Your task to perform on an android device: Clear the shopping cart on bestbuy. Search for corsair k70 on bestbuy, select the first entry, add it to the cart, then select checkout. Image 0: 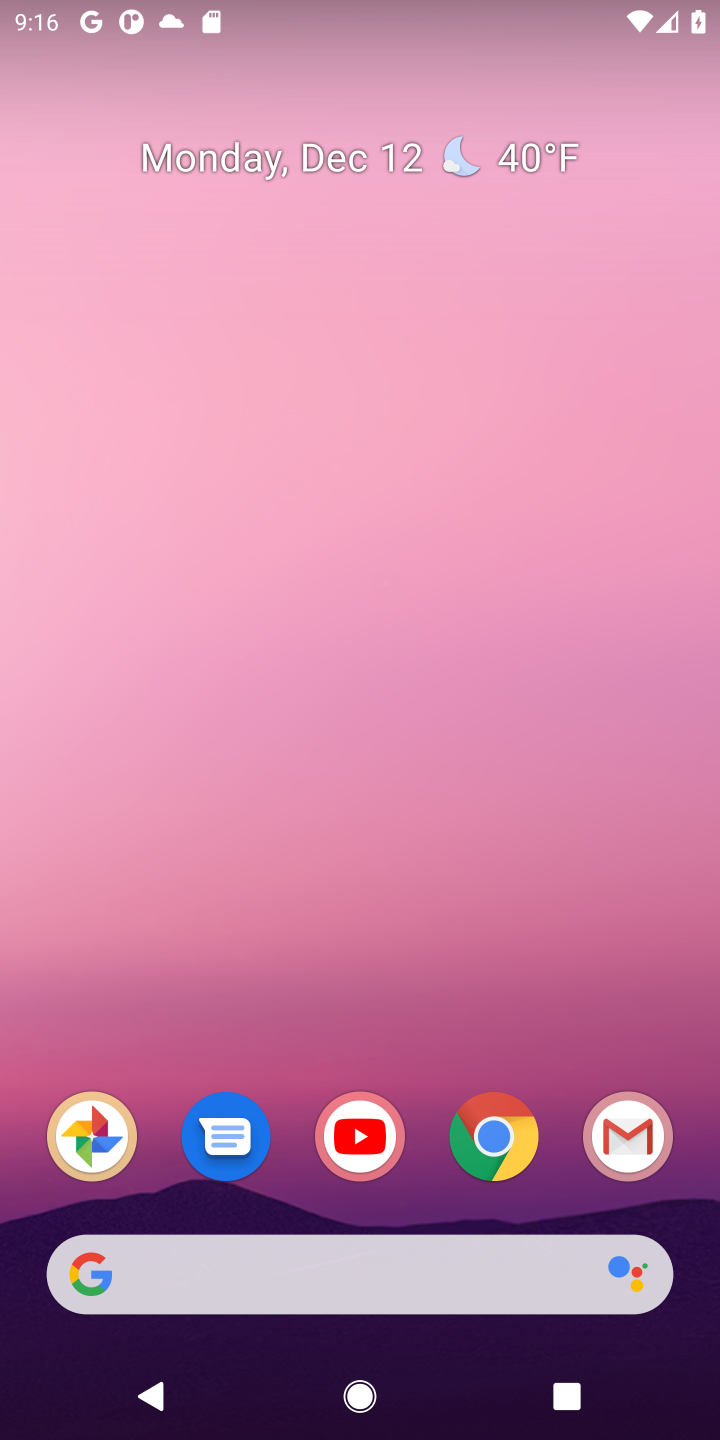
Step 0: click (504, 1150)
Your task to perform on an android device: Clear the shopping cart on bestbuy. Search for corsair k70 on bestbuy, select the first entry, add it to the cart, then select checkout. Image 1: 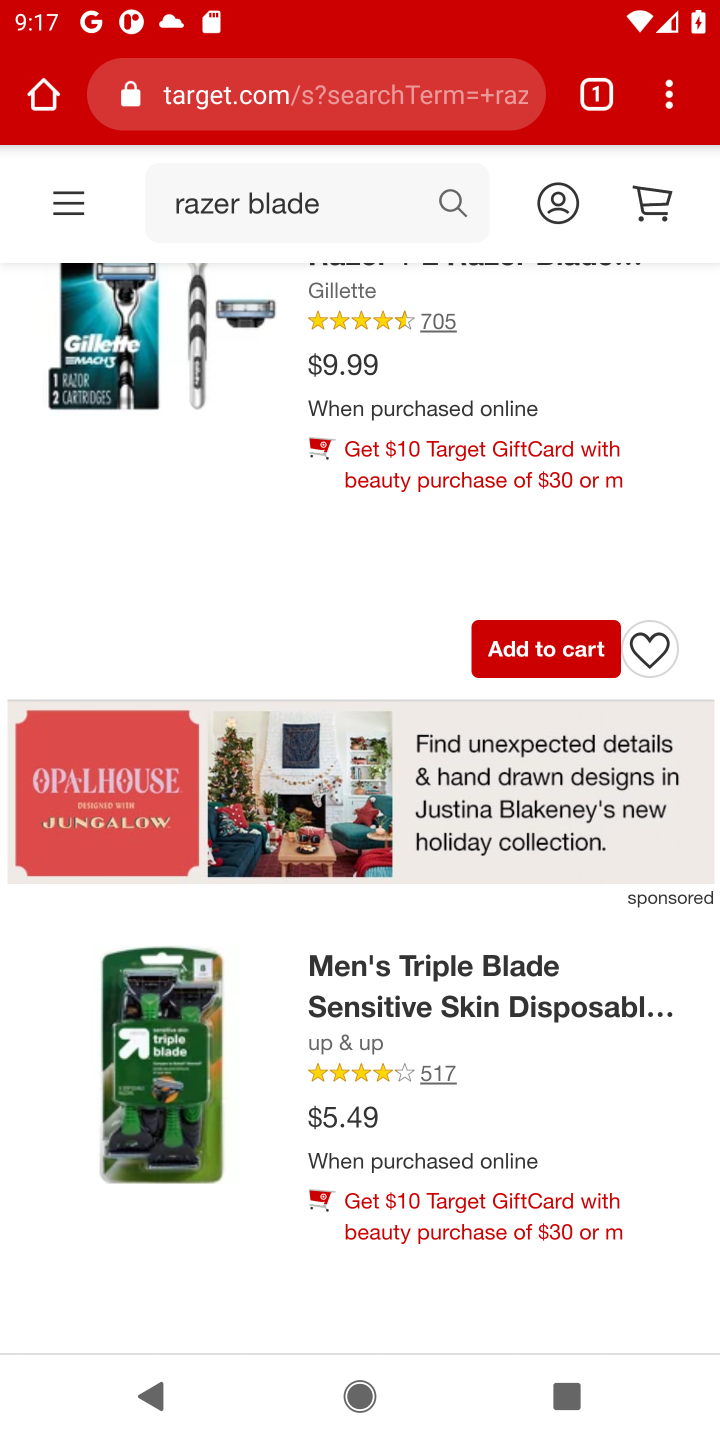
Step 1: click (232, 110)
Your task to perform on an android device: Clear the shopping cart on bestbuy. Search for corsair k70 on bestbuy, select the first entry, add it to the cart, then select checkout. Image 2: 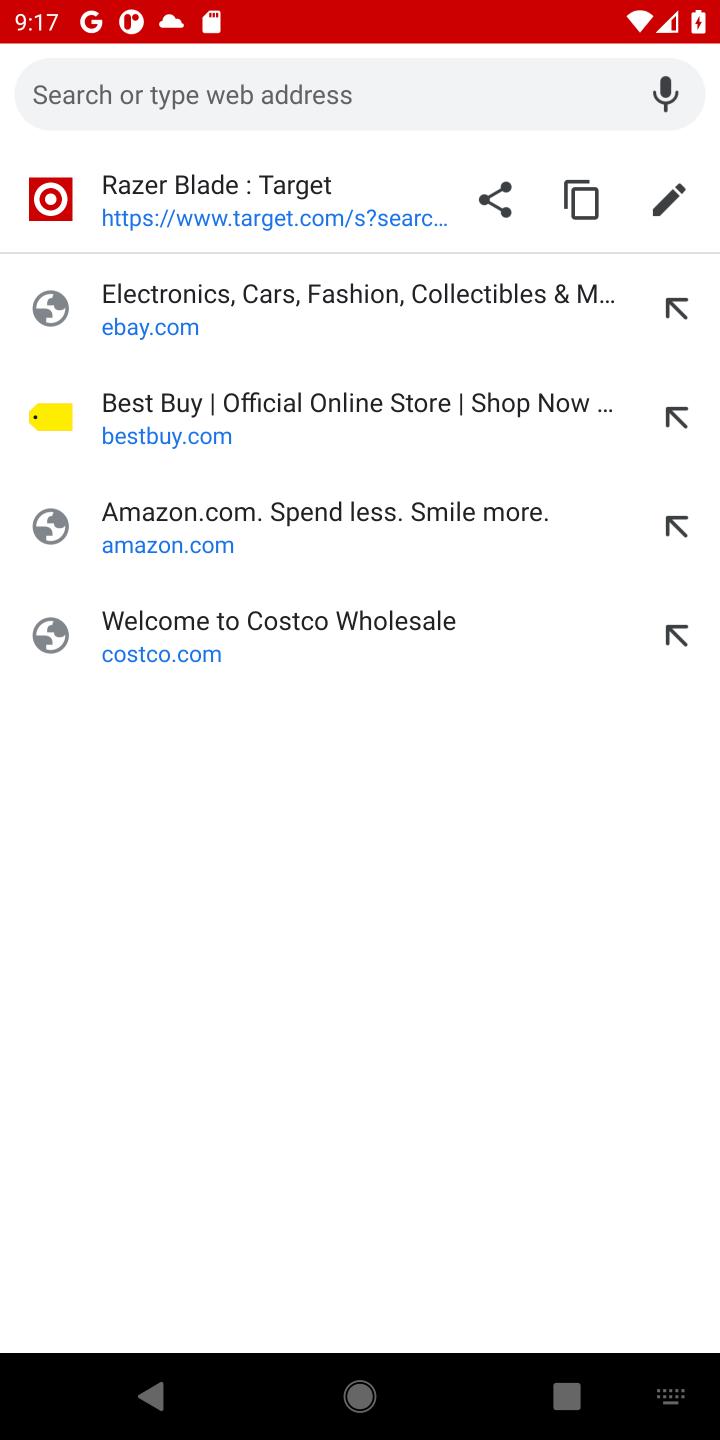
Step 2: click (111, 429)
Your task to perform on an android device: Clear the shopping cart on bestbuy. Search for corsair k70 on bestbuy, select the first entry, add it to the cart, then select checkout. Image 3: 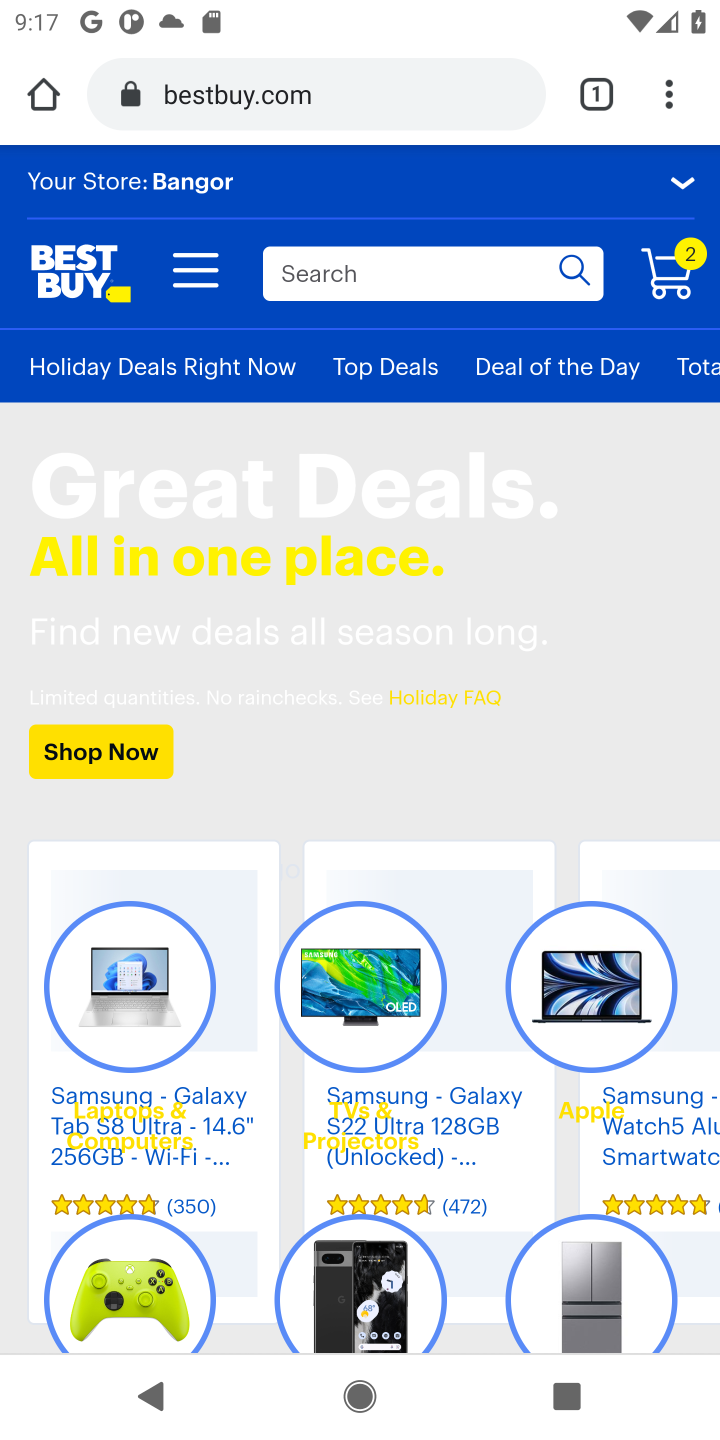
Step 3: click (672, 278)
Your task to perform on an android device: Clear the shopping cart on bestbuy. Search for corsair k70 on bestbuy, select the first entry, add it to the cart, then select checkout. Image 4: 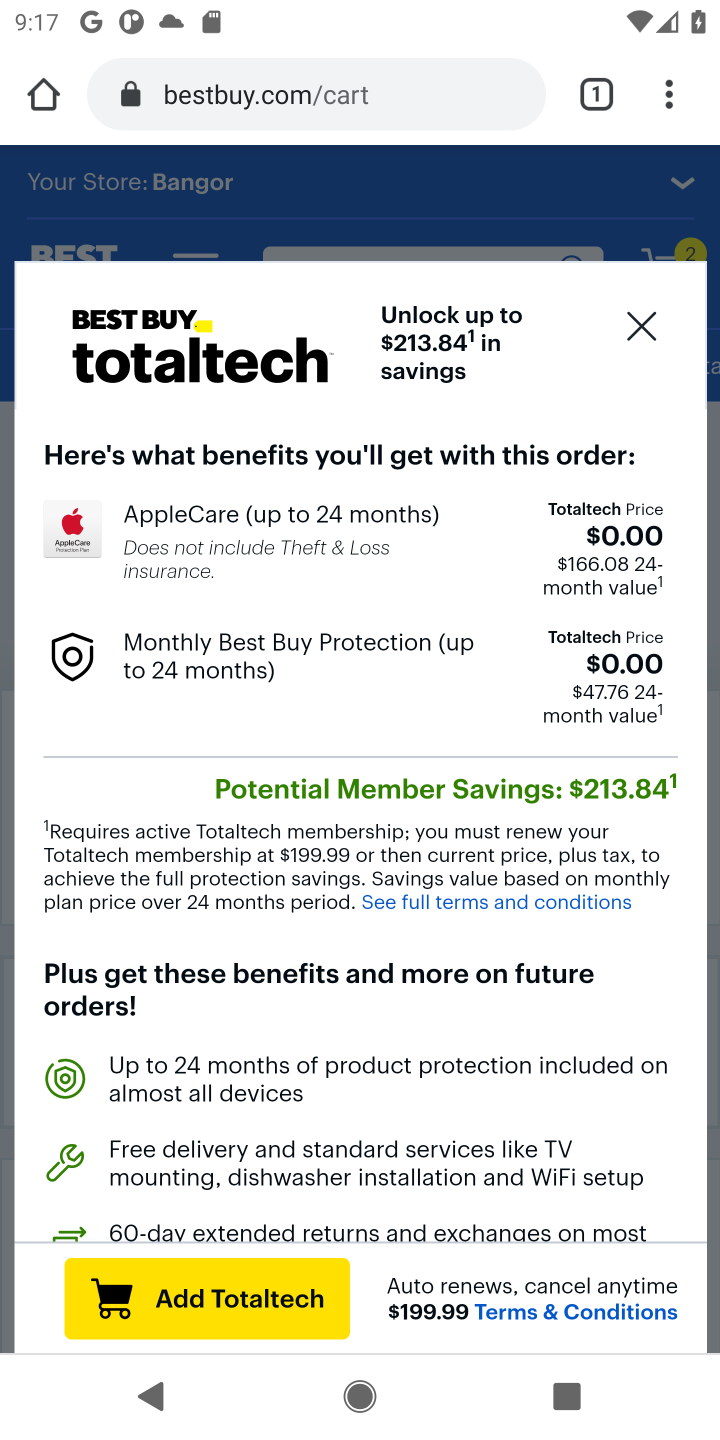
Step 4: click (640, 331)
Your task to perform on an android device: Clear the shopping cart on bestbuy. Search for corsair k70 on bestbuy, select the first entry, add it to the cart, then select checkout. Image 5: 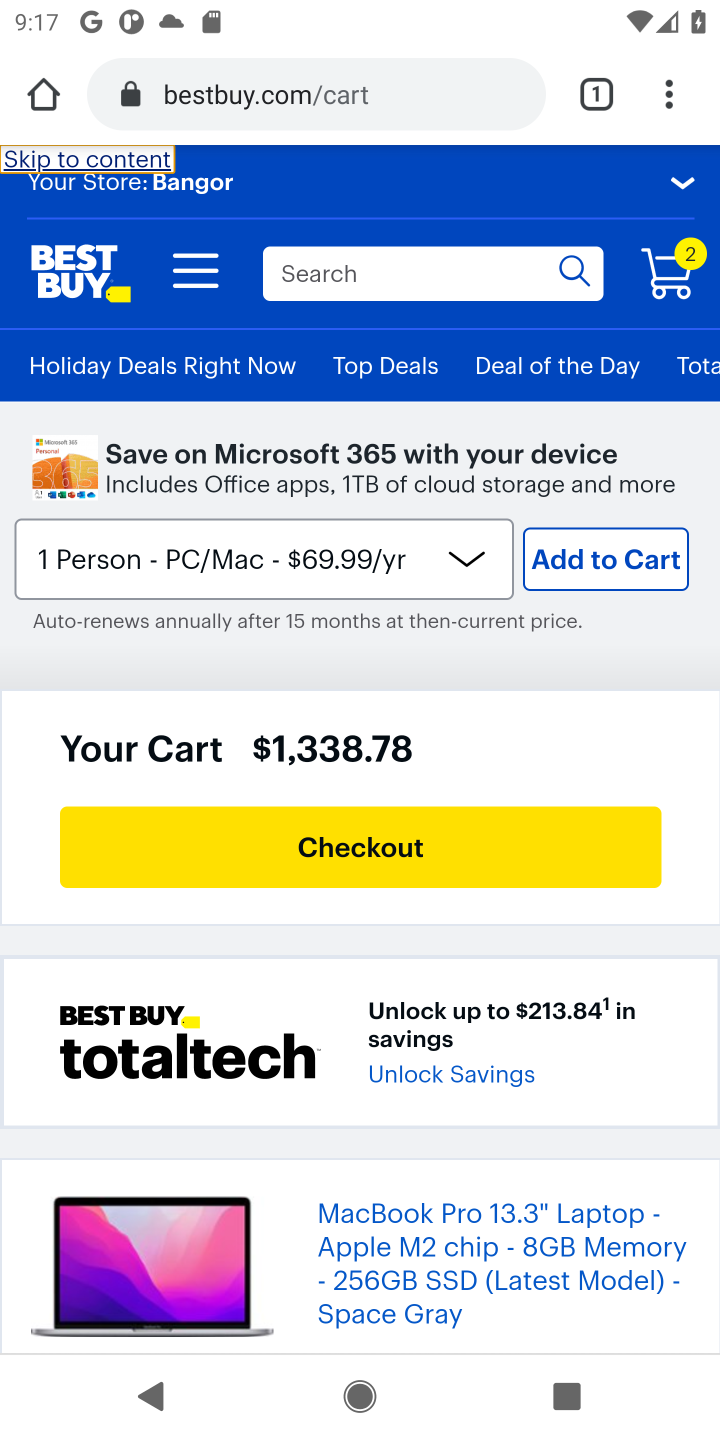
Step 5: drag from (311, 1074) to (329, 447)
Your task to perform on an android device: Clear the shopping cart on bestbuy. Search for corsair k70 on bestbuy, select the first entry, add it to the cart, then select checkout. Image 6: 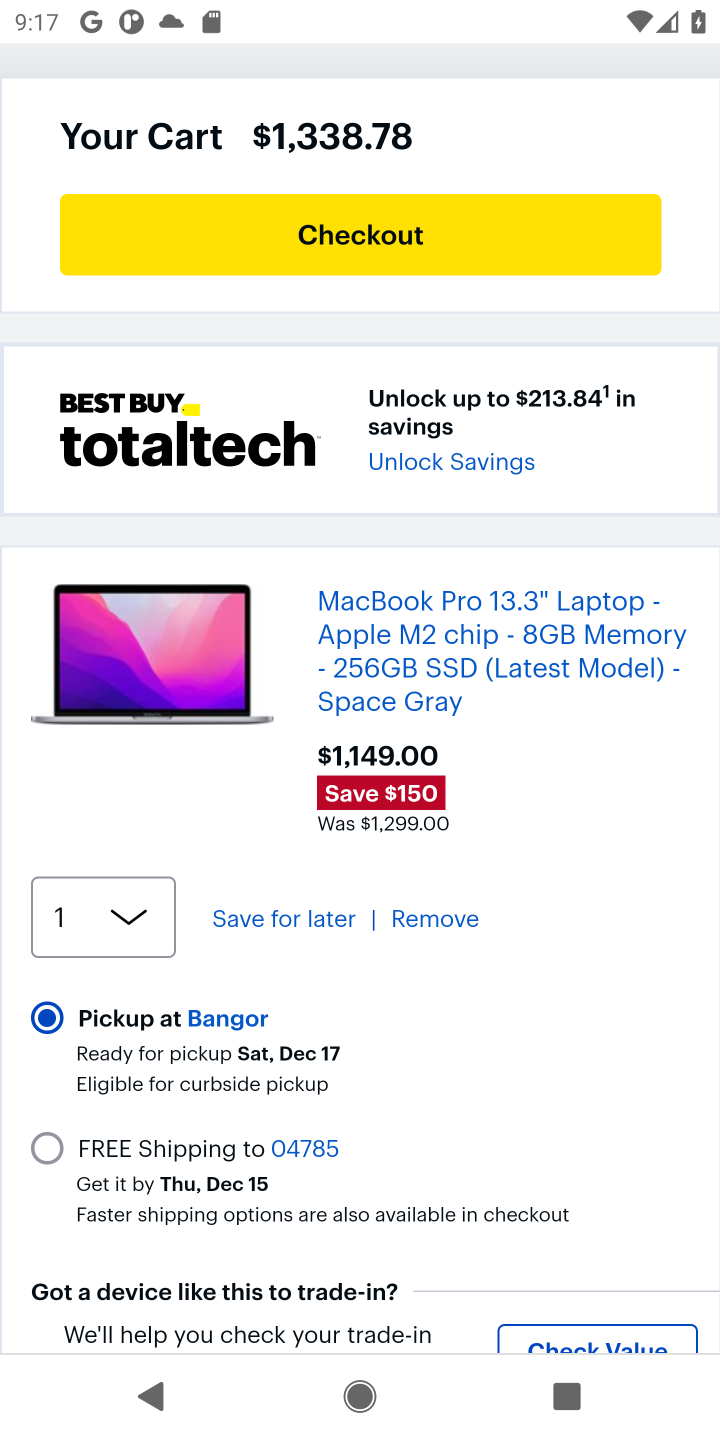
Step 6: click (410, 914)
Your task to perform on an android device: Clear the shopping cart on bestbuy. Search for corsair k70 on bestbuy, select the first entry, add it to the cart, then select checkout. Image 7: 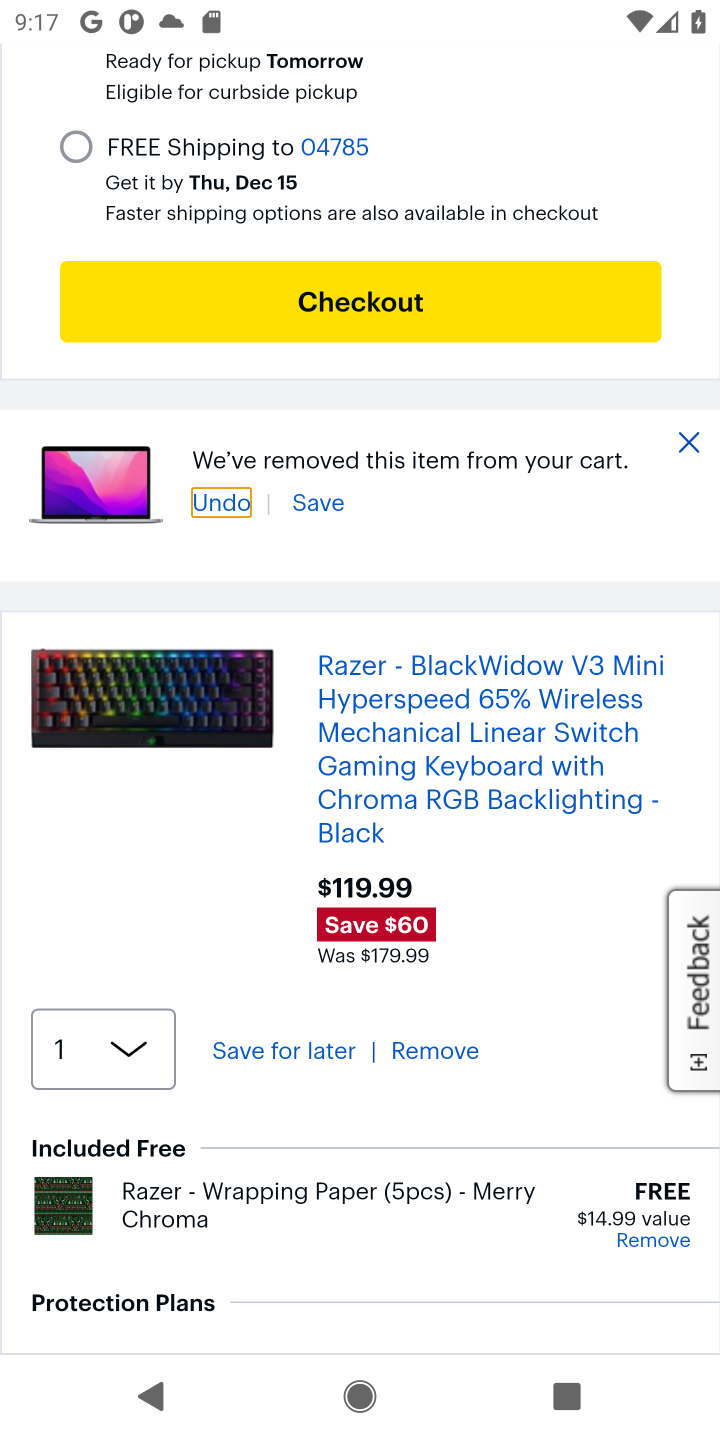
Step 7: click (420, 1049)
Your task to perform on an android device: Clear the shopping cart on bestbuy. Search for corsair k70 on bestbuy, select the first entry, add it to the cart, then select checkout. Image 8: 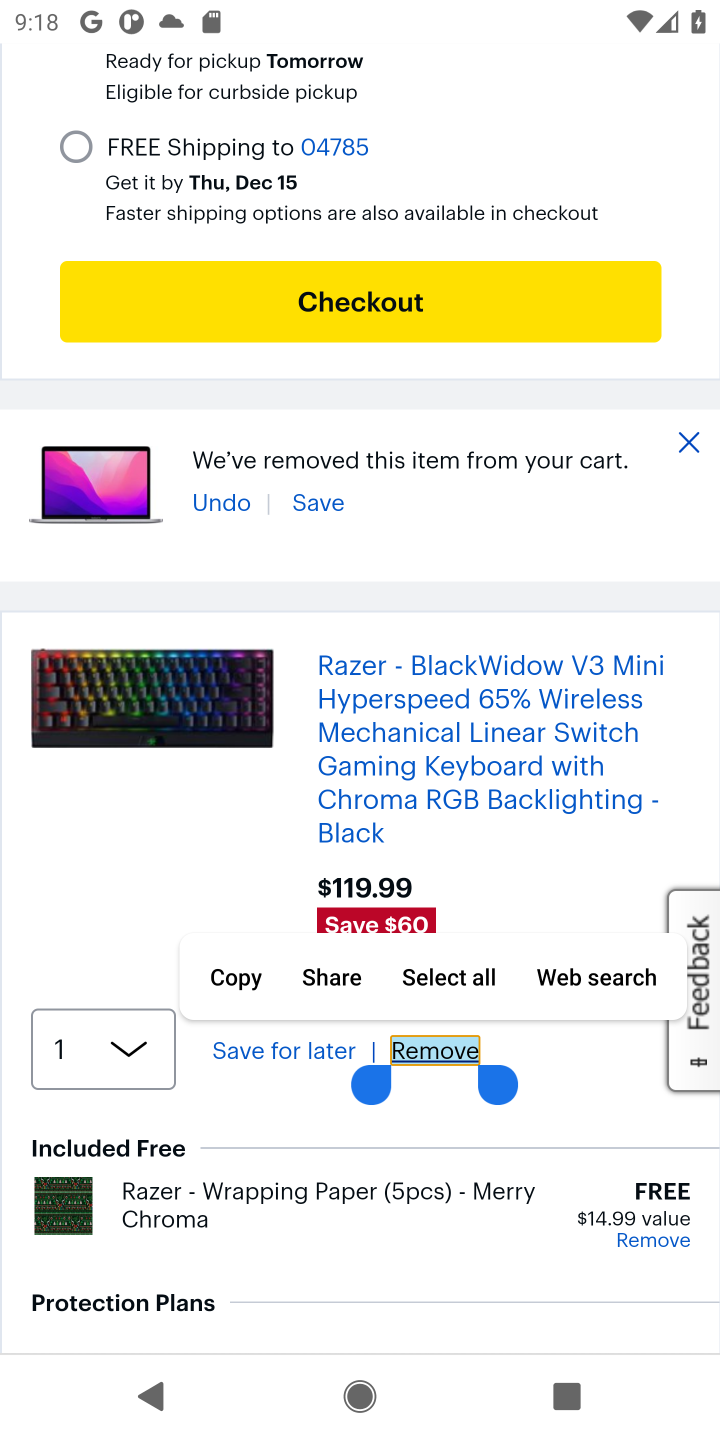
Step 8: click (438, 1057)
Your task to perform on an android device: Clear the shopping cart on bestbuy. Search for corsair k70 on bestbuy, select the first entry, add it to the cart, then select checkout. Image 9: 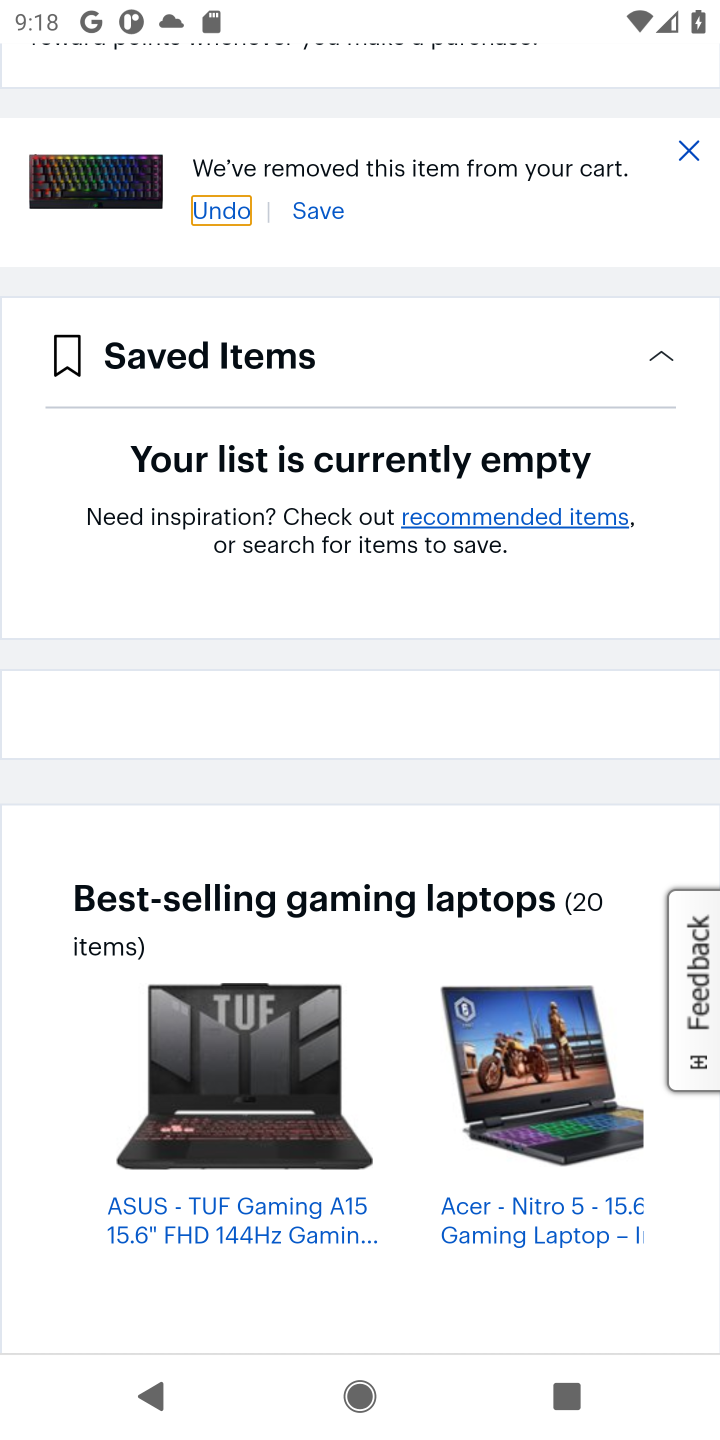
Step 9: drag from (446, 749) to (446, 1017)
Your task to perform on an android device: Clear the shopping cart on bestbuy. Search for corsair k70 on bestbuy, select the first entry, add it to the cart, then select checkout. Image 10: 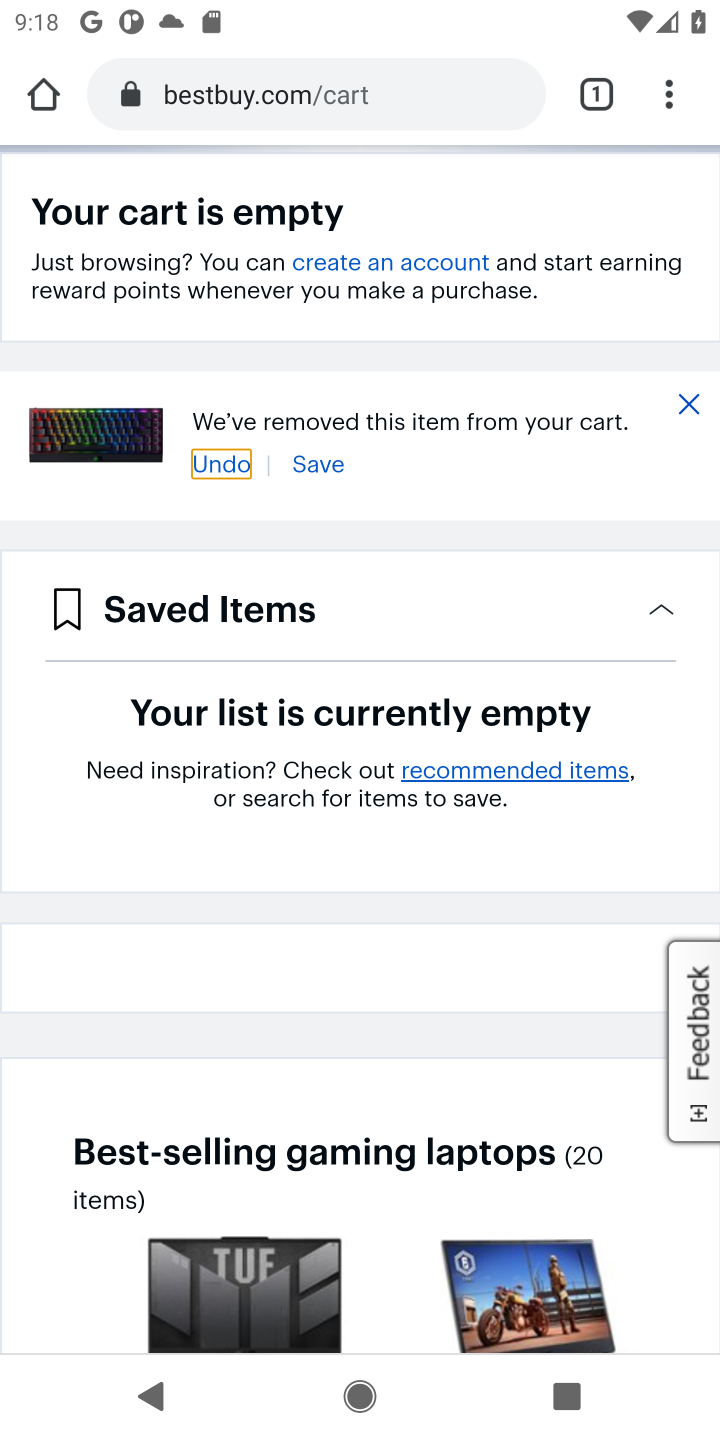
Step 10: drag from (215, 247) to (193, 833)
Your task to perform on an android device: Clear the shopping cart on bestbuy. Search for corsair k70 on bestbuy, select the first entry, add it to the cart, then select checkout. Image 11: 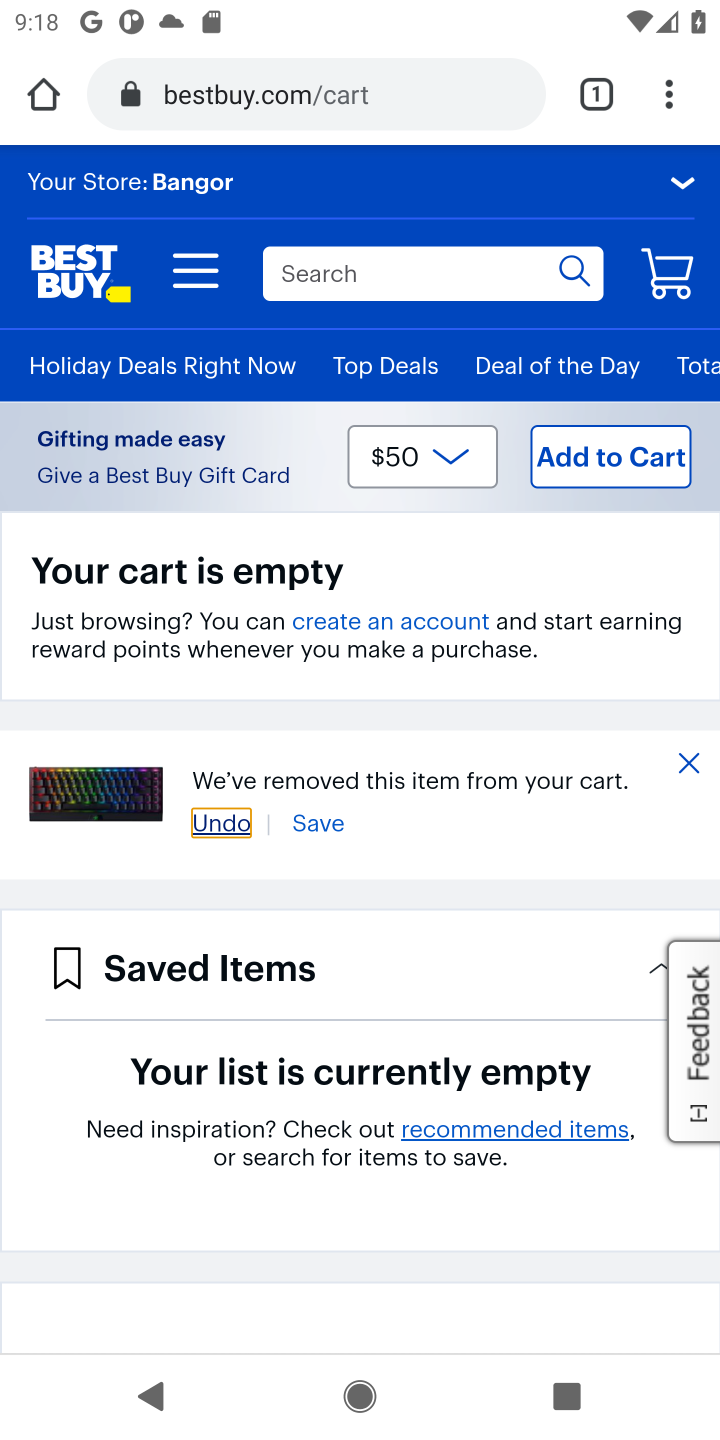
Step 11: click (319, 268)
Your task to perform on an android device: Clear the shopping cart on bestbuy. Search for corsair k70 on bestbuy, select the first entry, add it to the cart, then select checkout. Image 12: 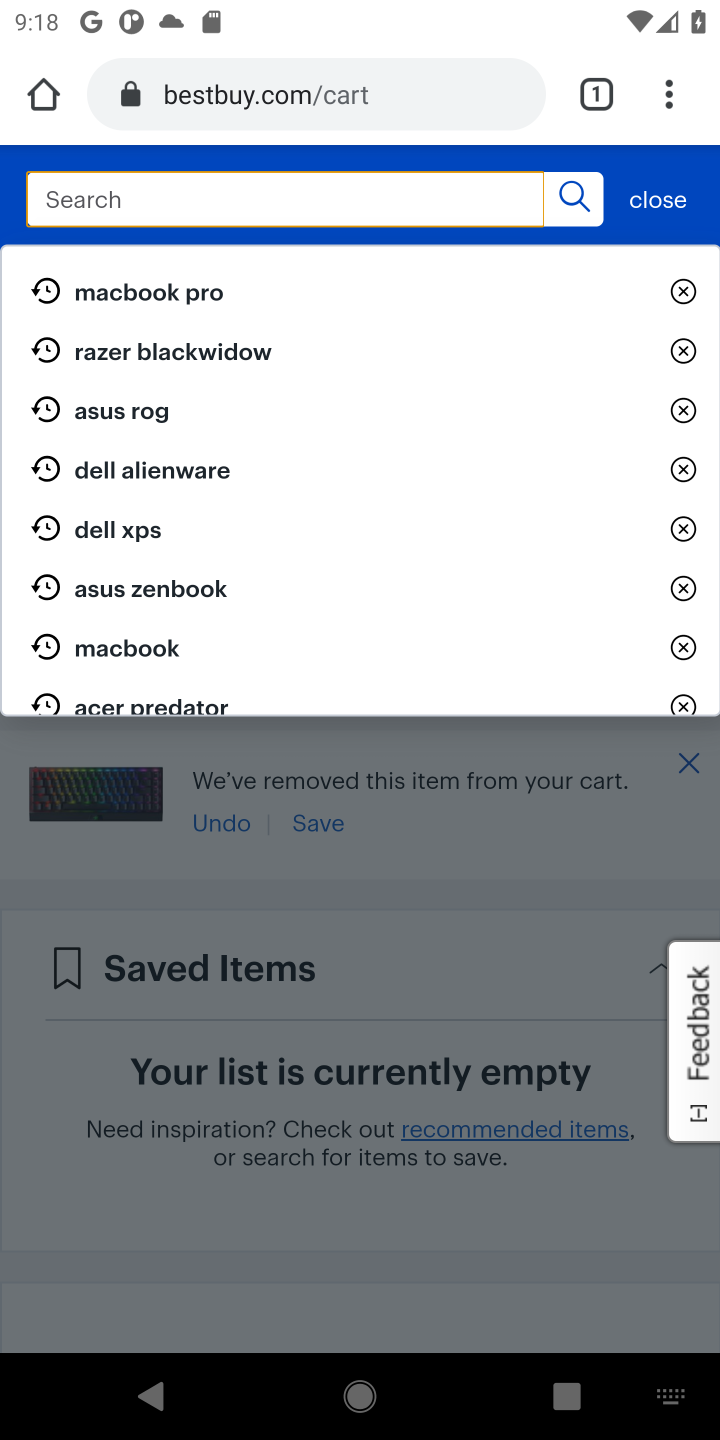
Step 12: type "corsair k70"
Your task to perform on an android device: Clear the shopping cart on bestbuy. Search for corsair k70 on bestbuy, select the first entry, add it to the cart, then select checkout. Image 13: 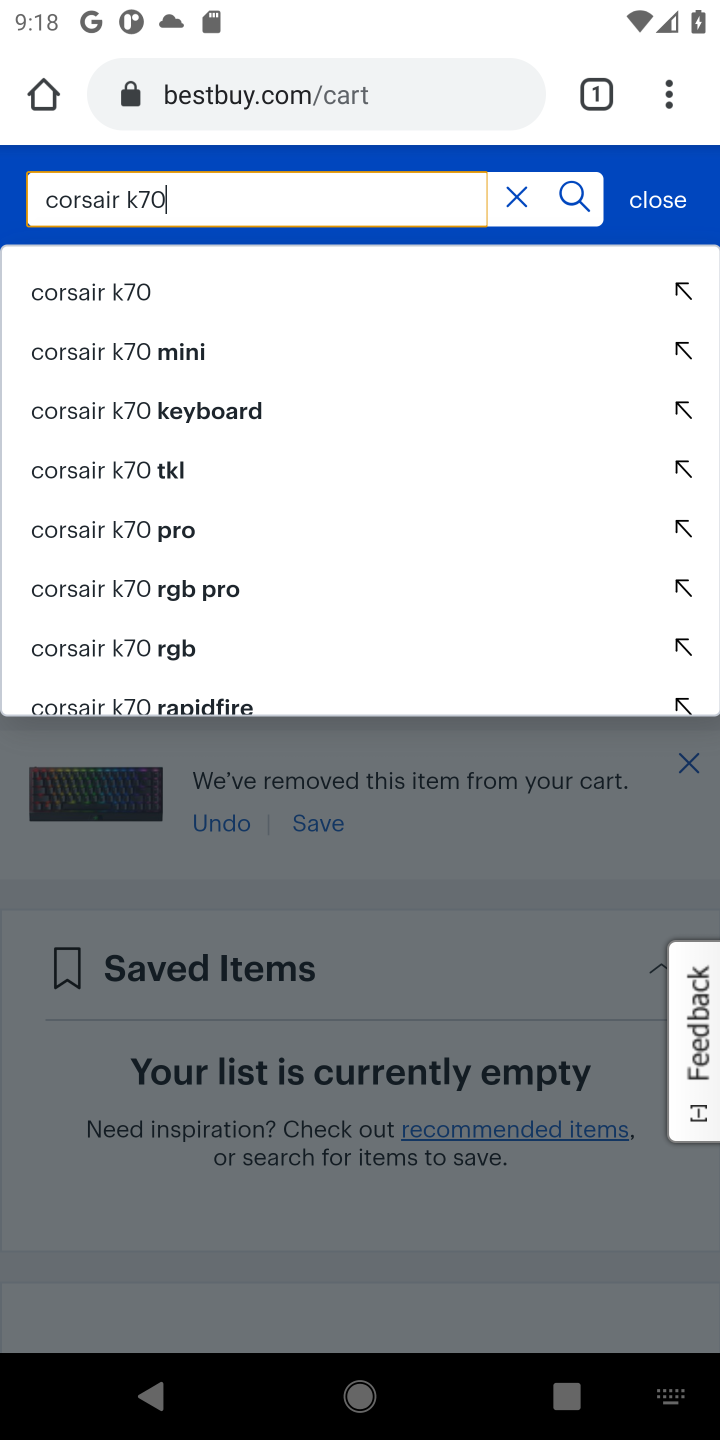
Step 13: click (125, 294)
Your task to perform on an android device: Clear the shopping cart on bestbuy. Search for corsair k70 on bestbuy, select the first entry, add it to the cart, then select checkout. Image 14: 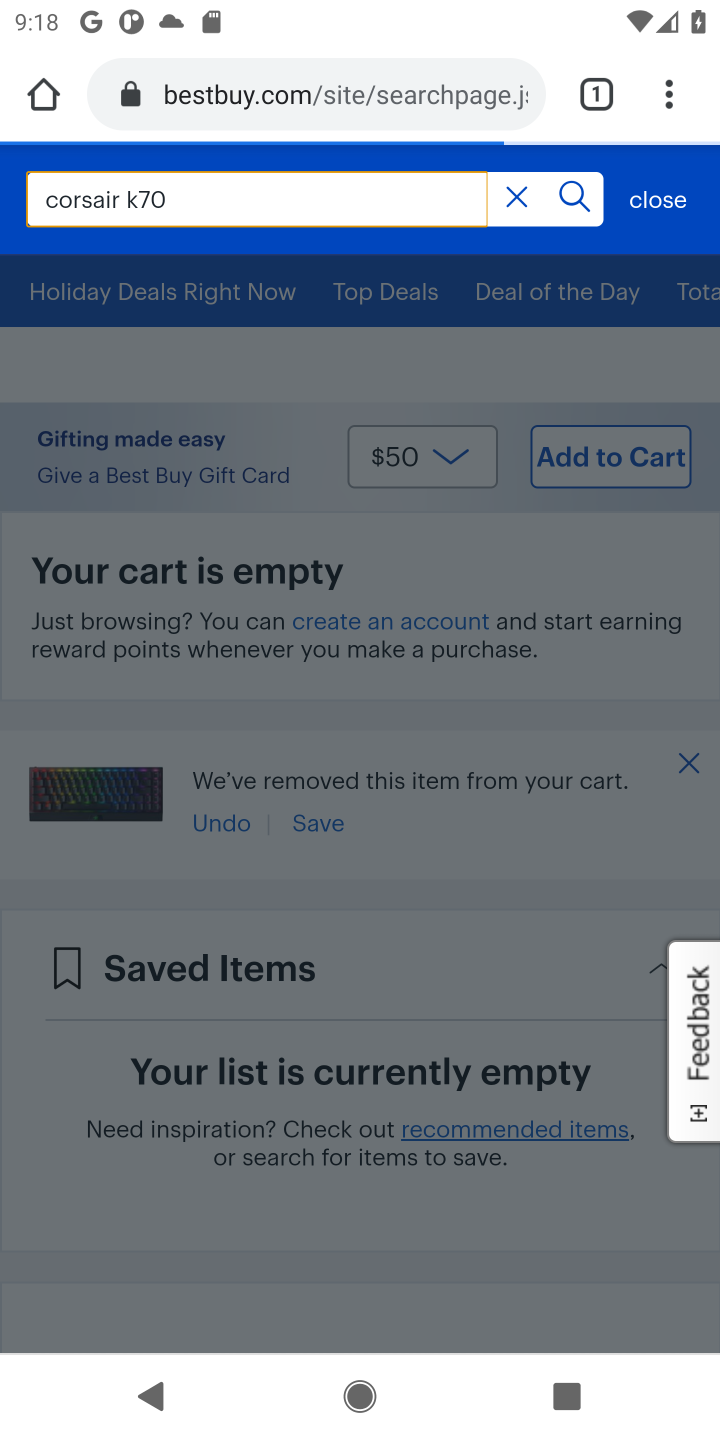
Step 14: click (578, 191)
Your task to perform on an android device: Clear the shopping cart on bestbuy. Search for corsair k70 on bestbuy, select the first entry, add it to the cart, then select checkout. Image 15: 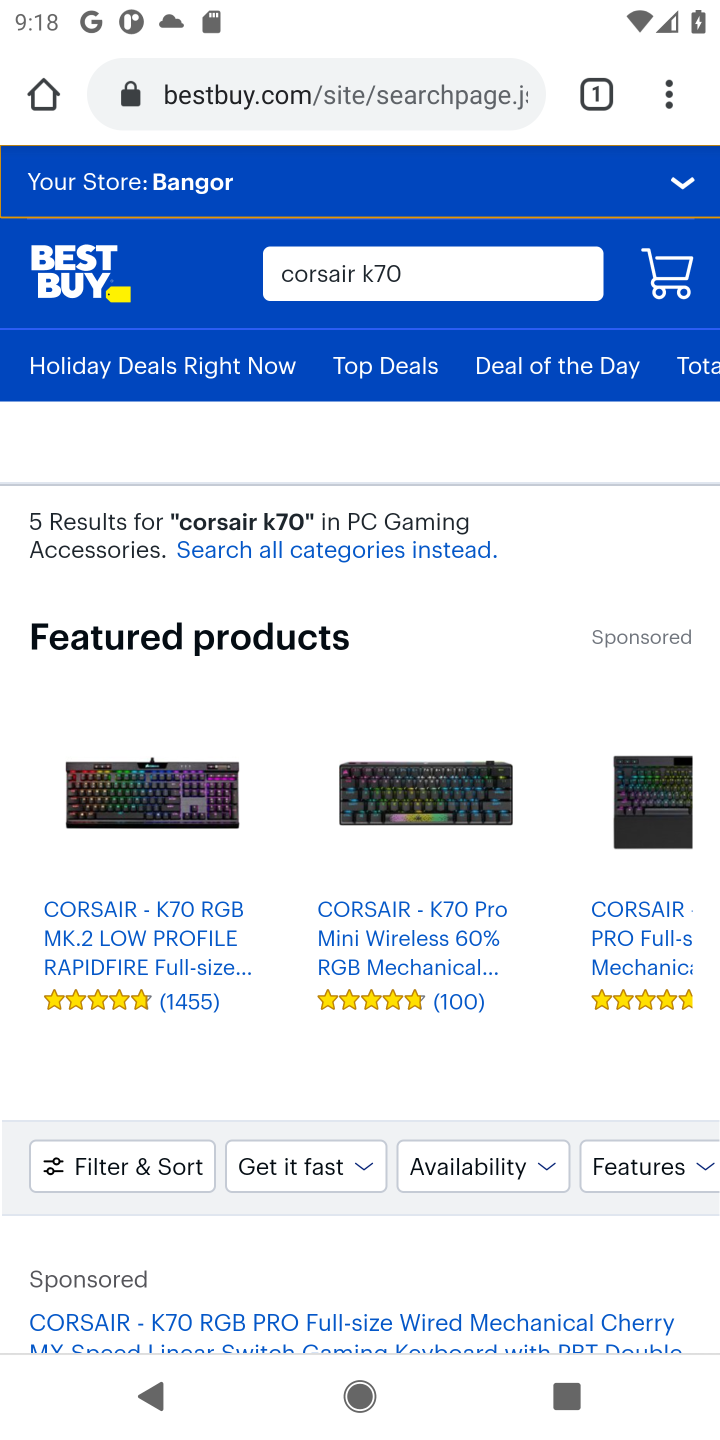
Step 15: drag from (359, 942) to (402, 368)
Your task to perform on an android device: Clear the shopping cart on bestbuy. Search for corsair k70 on bestbuy, select the first entry, add it to the cart, then select checkout. Image 16: 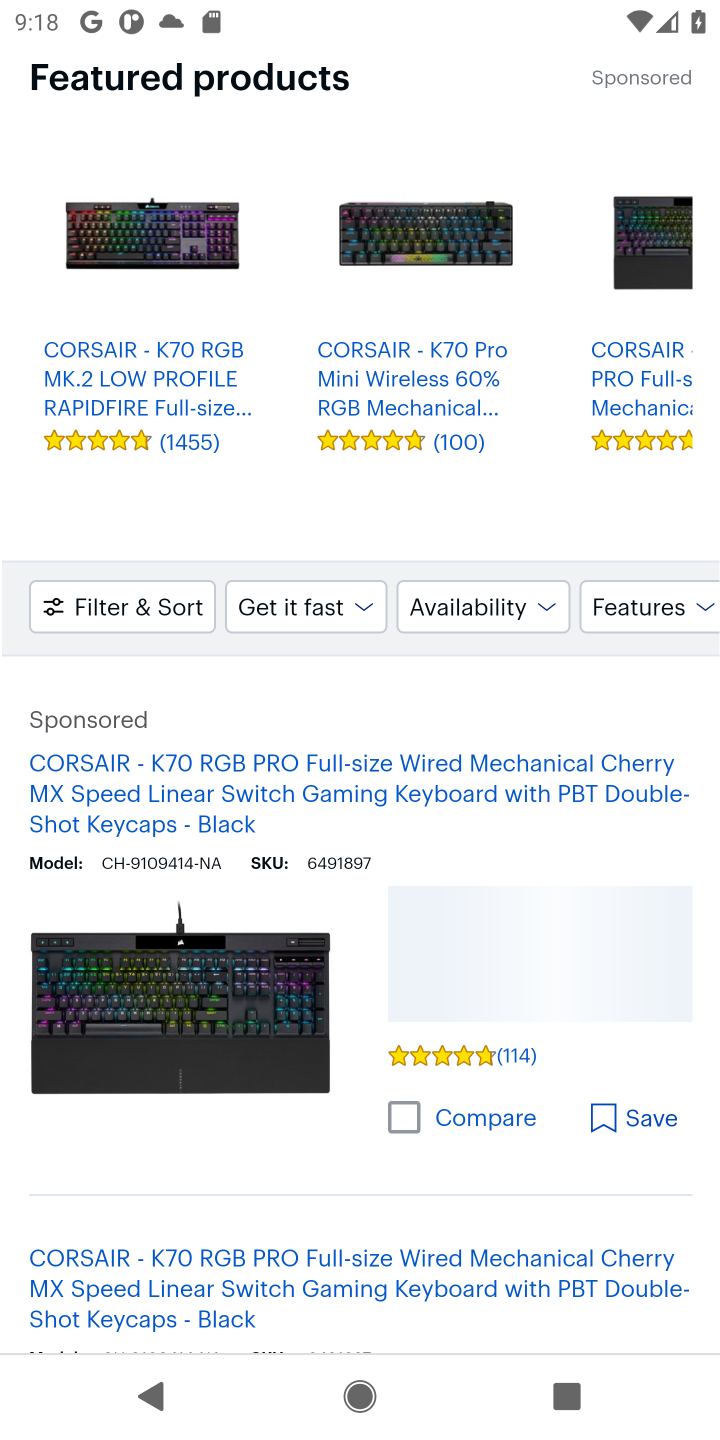
Step 16: drag from (287, 889) to (322, 544)
Your task to perform on an android device: Clear the shopping cart on bestbuy. Search for corsair k70 on bestbuy, select the first entry, add it to the cart, then select checkout. Image 17: 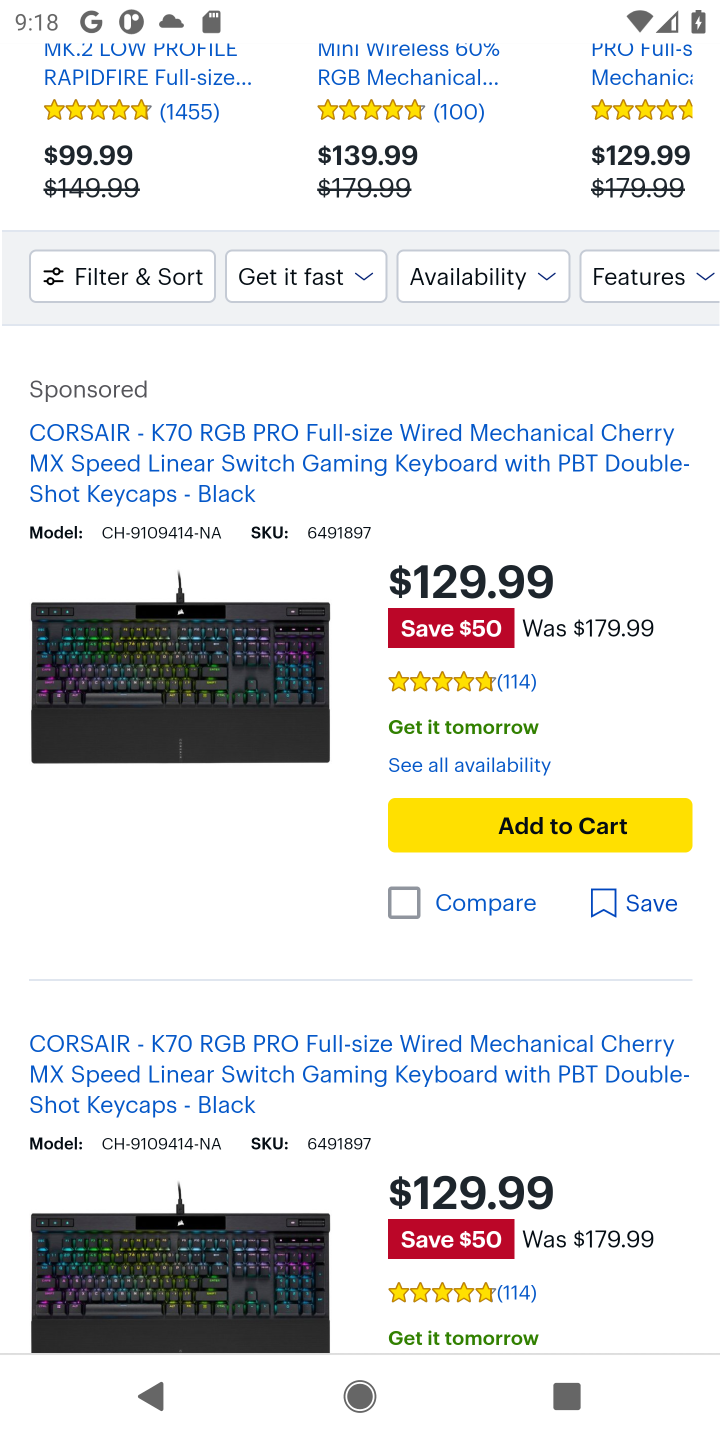
Step 17: click (555, 841)
Your task to perform on an android device: Clear the shopping cart on bestbuy. Search for corsair k70 on bestbuy, select the first entry, add it to the cart, then select checkout. Image 18: 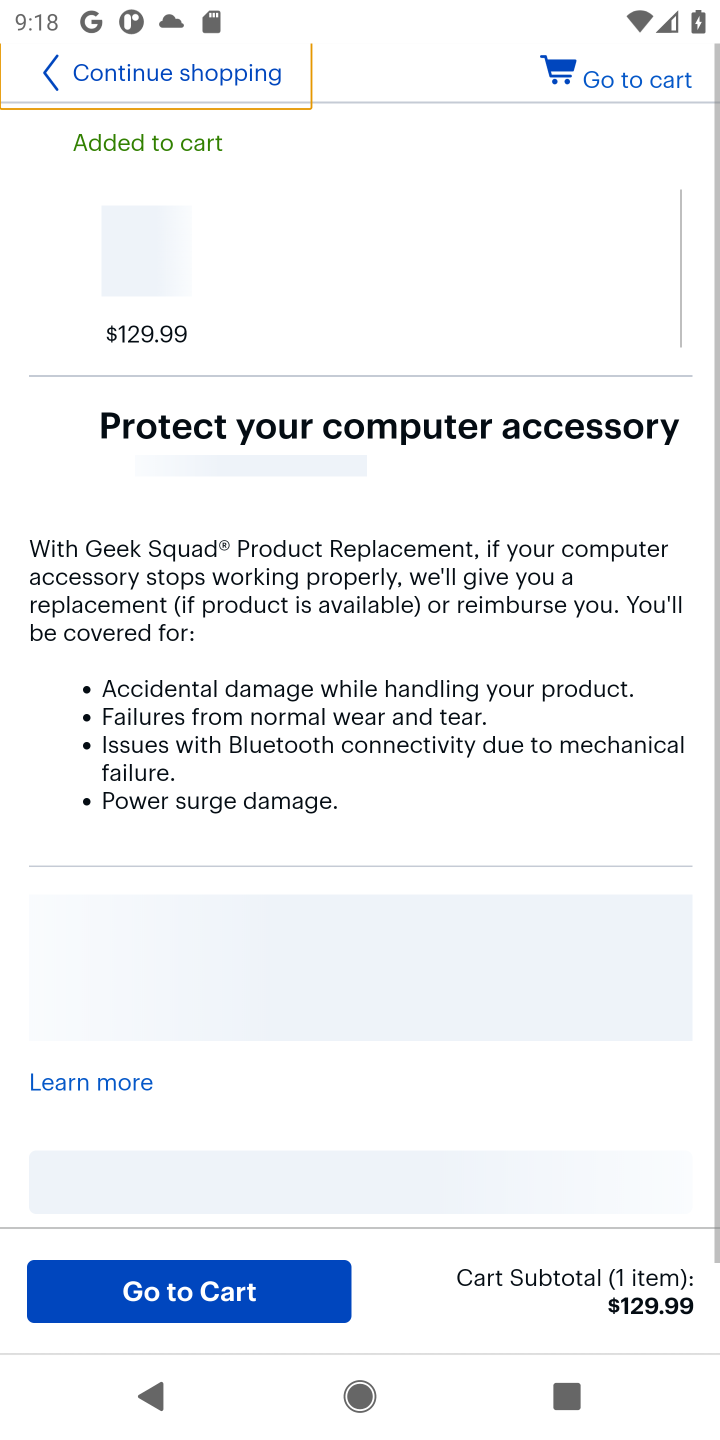
Step 18: click (634, 90)
Your task to perform on an android device: Clear the shopping cart on bestbuy. Search for corsair k70 on bestbuy, select the first entry, add it to the cart, then select checkout. Image 19: 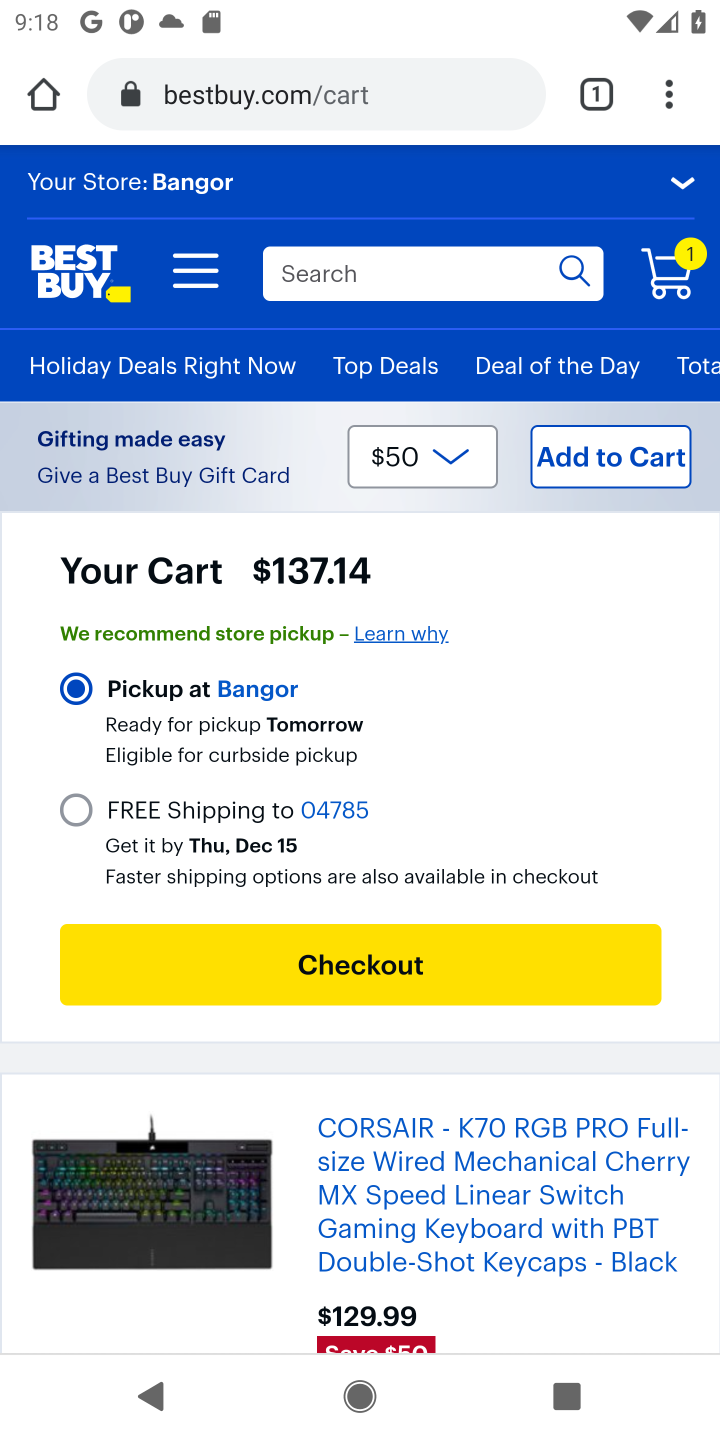
Step 19: click (338, 968)
Your task to perform on an android device: Clear the shopping cart on bestbuy. Search for corsair k70 on bestbuy, select the first entry, add it to the cart, then select checkout. Image 20: 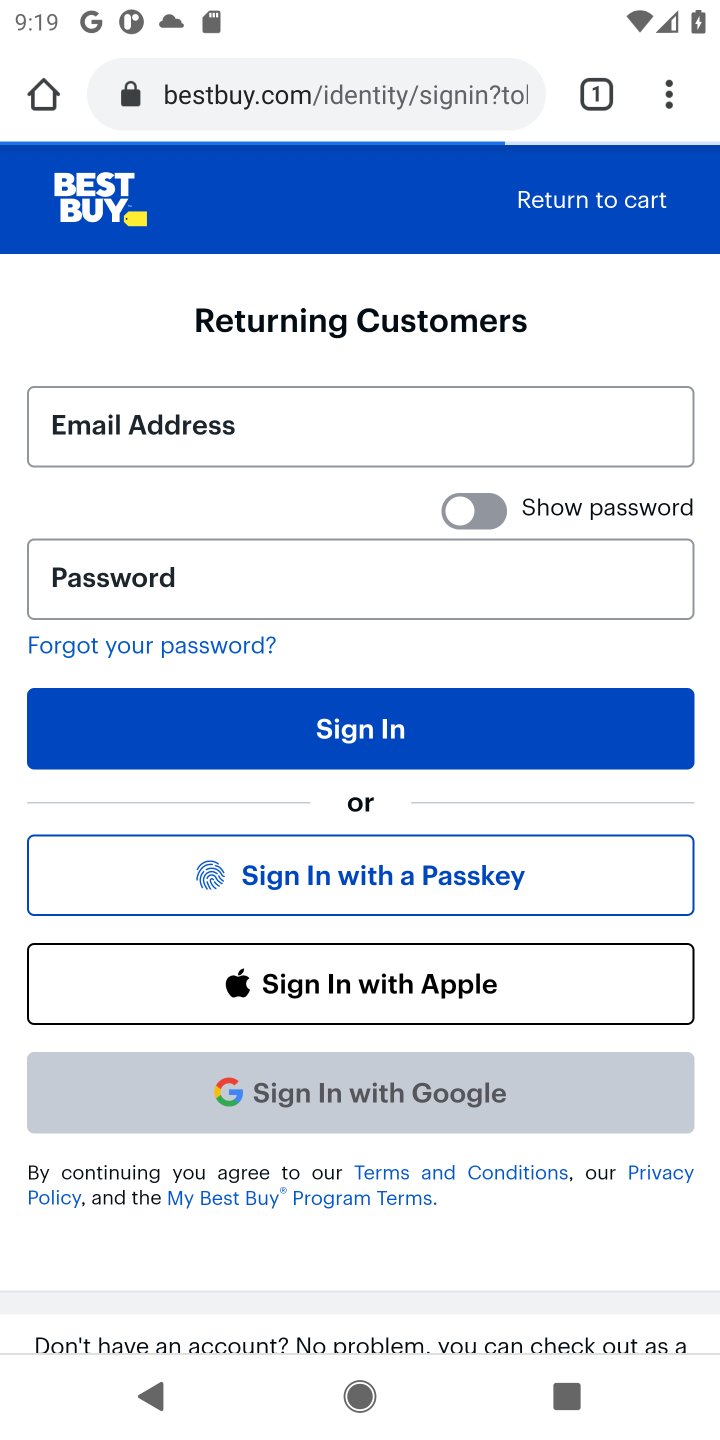
Step 20: task complete